Your task to perform on an android device: Go to accessibility settings Image 0: 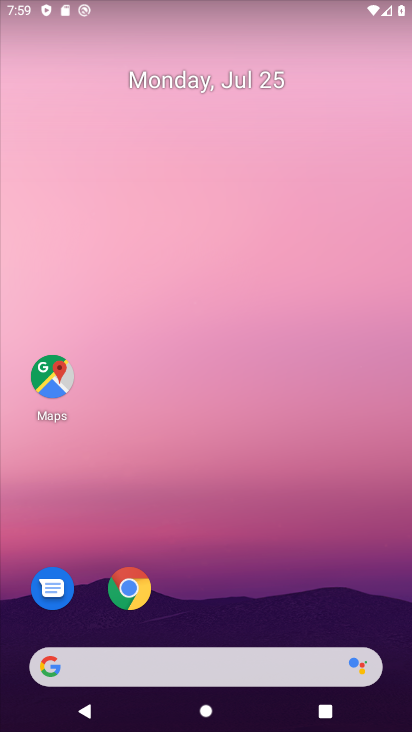
Step 0: drag from (230, 626) to (223, 204)
Your task to perform on an android device: Go to accessibility settings Image 1: 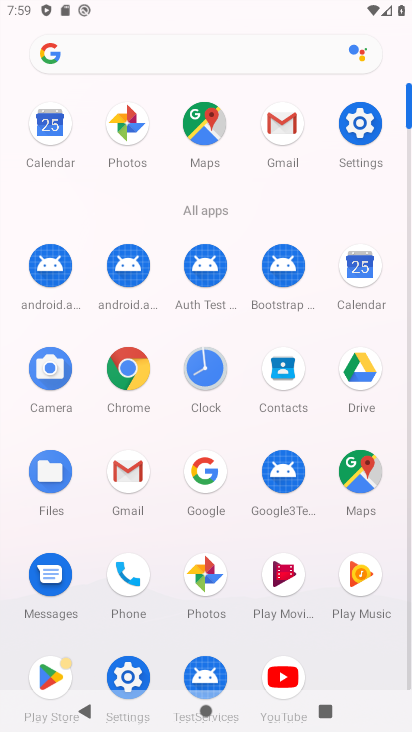
Step 1: click (353, 113)
Your task to perform on an android device: Go to accessibility settings Image 2: 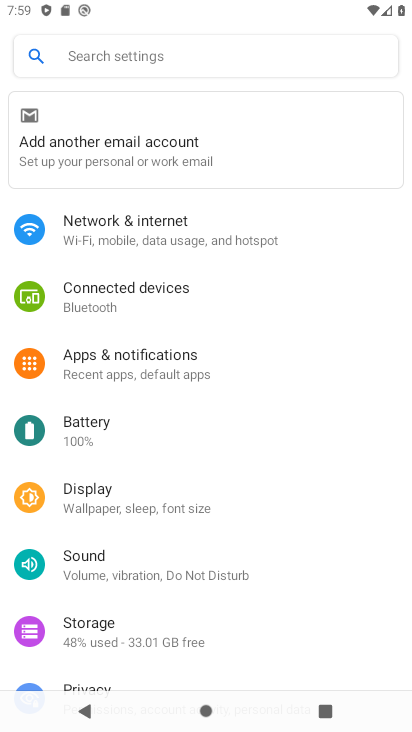
Step 2: drag from (143, 616) to (155, 122)
Your task to perform on an android device: Go to accessibility settings Image 3: 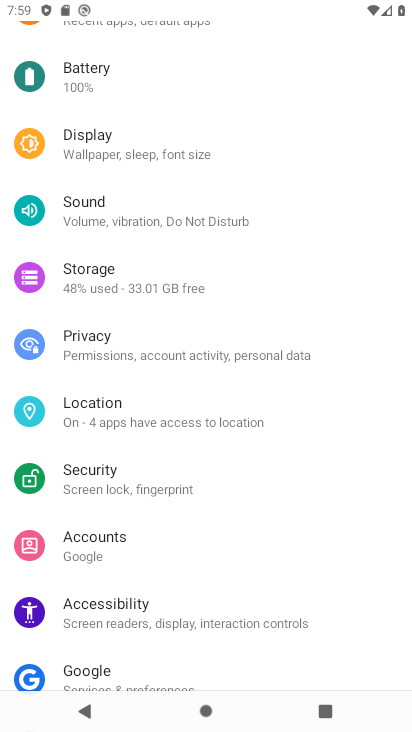
Step 3: click (125, 606)
Your task to perform on an android device: Go to accessibility settings Image 4: 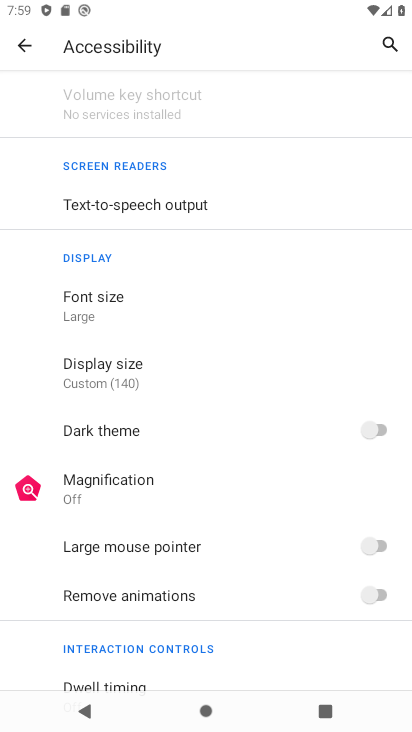
Step 4: task complete